Your task to perform on an android device: add a label to a message in the gmail app Image 0: 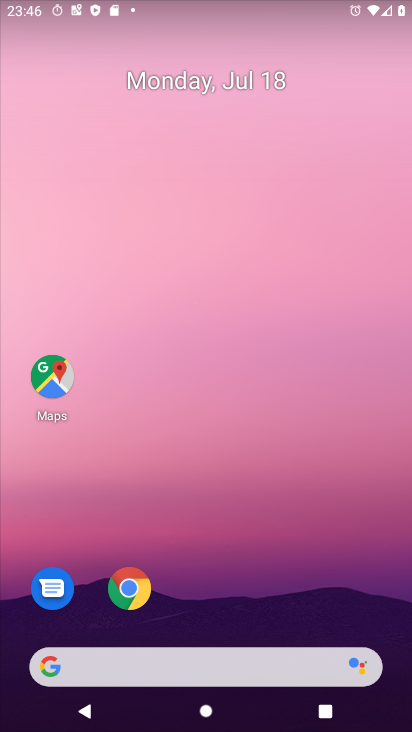
Step 0: press home button
Your task to perform on an android device: add a label to a message in the gmail app Image 1: 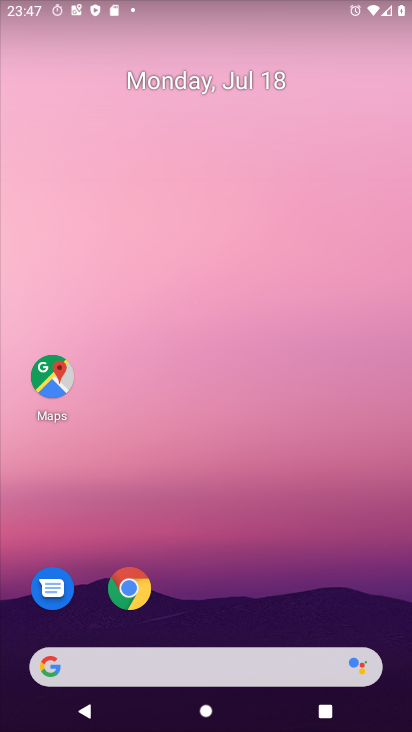
Step 1: drag from (164, 668) to (297, 150)
Your task to perform on an android device: add a label to a message in the gmail app Image 2: 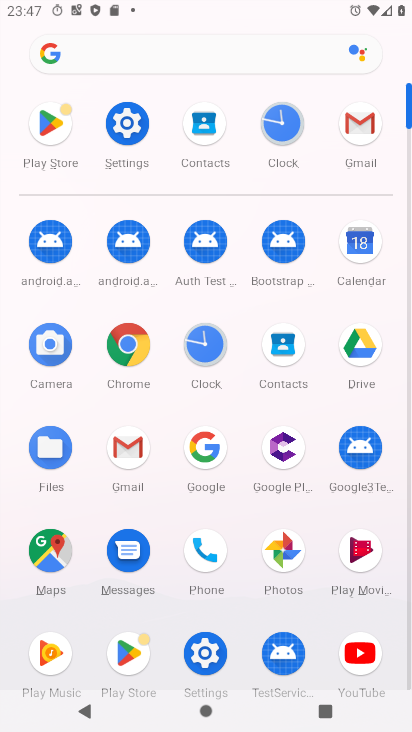
Step 2: click (359, 137)
Your task to perform on an android device: add a label to a message in the gmail app Image 3: 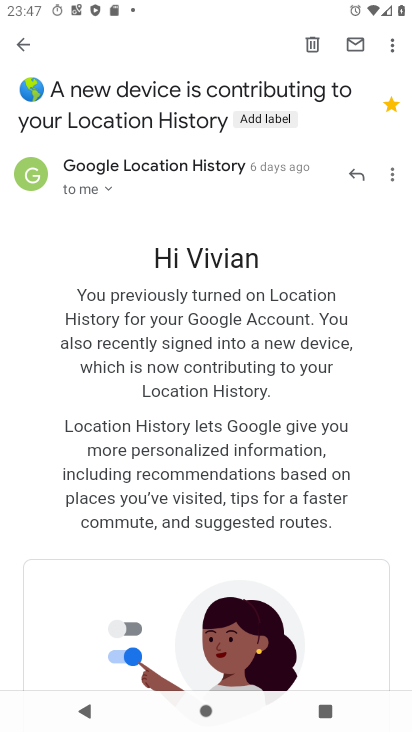
Step 3: click (260, 117)
Your task to perform on an android device: add a label to a message in the gmail app Image 4: 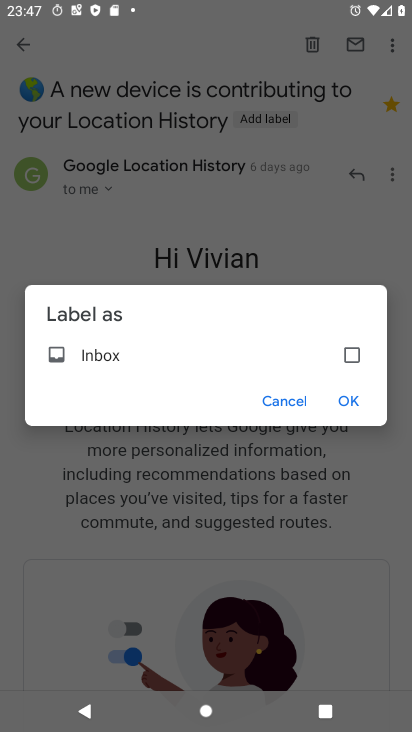
Step 4: click (350, 356)
Your task to perform on an android device: add a label to a message in the gmail app Image 5: 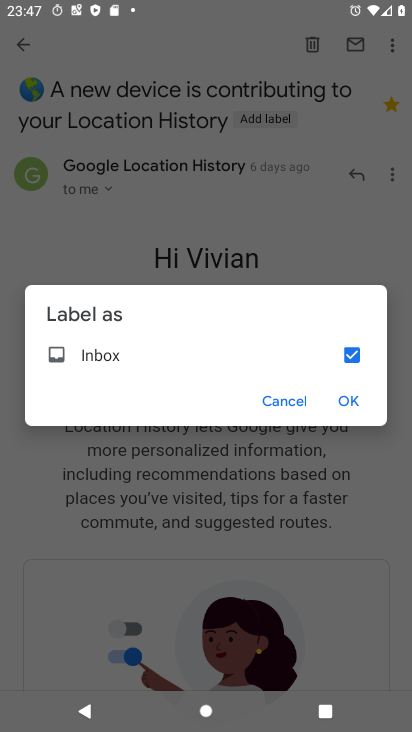
Step 5: click (346, 404)
Your task to perform on an android device: add a label to a message in the gmail app Image 6: 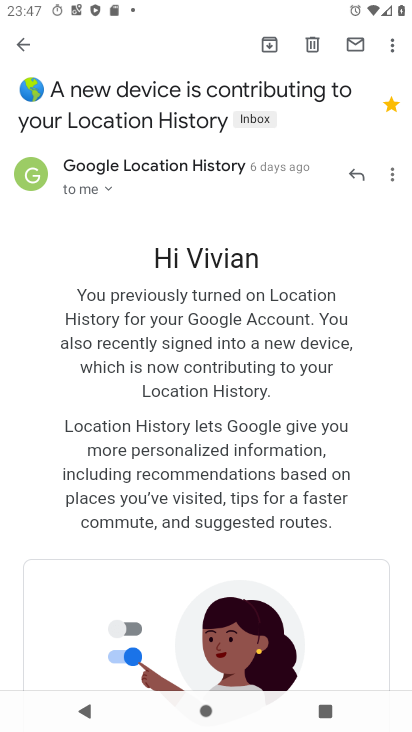
Step 6: task complete